Your task to perform on an android device: delete browsing data in the chrome app Image 0: 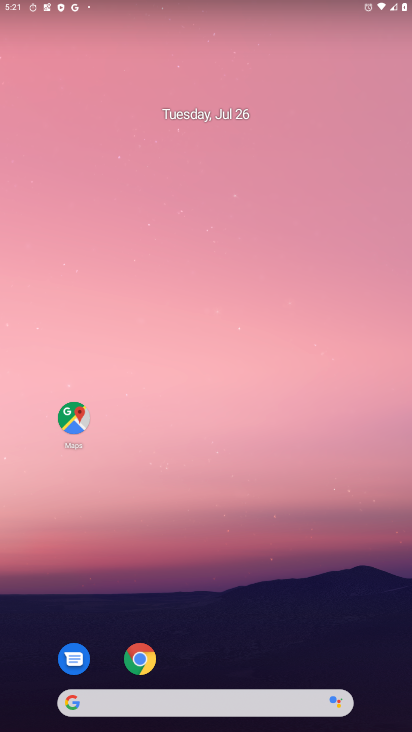
Step 0: press home button
Your task to perform on an android device: delete browsing data in the chrome app Image 1: 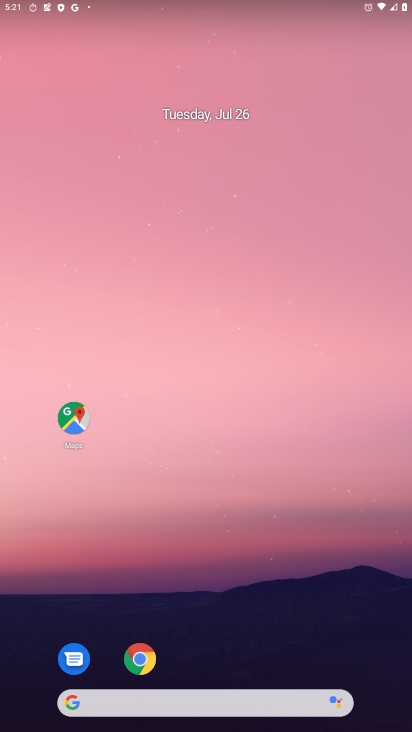
Step 1: drag from (218, 675) to (217, 16)
Your task to perform on an android device: delete browsing data in the chrome app Image 2: 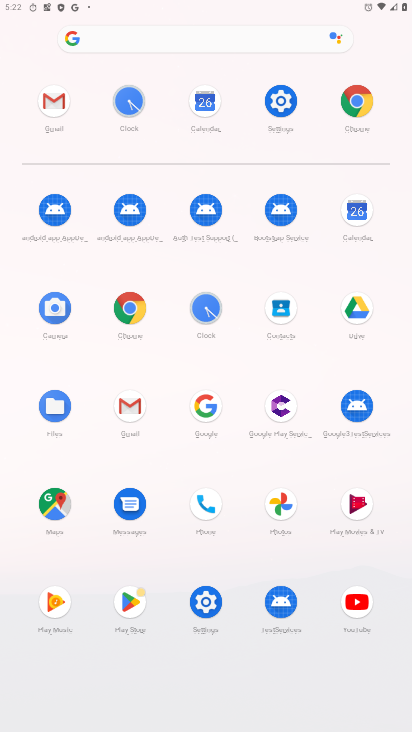
Step 2: click (357, 97)
Your task to perform on an android device: delete browsing data in the chrome app Image 3: 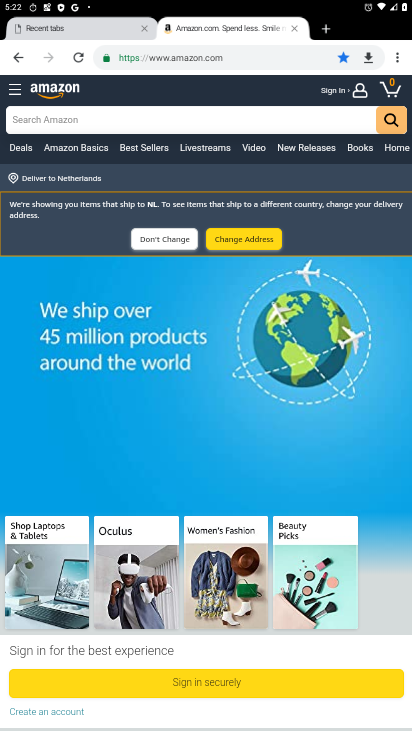
Step 3: click (397, 51)
Your task to perform on an android device: delete browsing data in the chrome app Image 4: 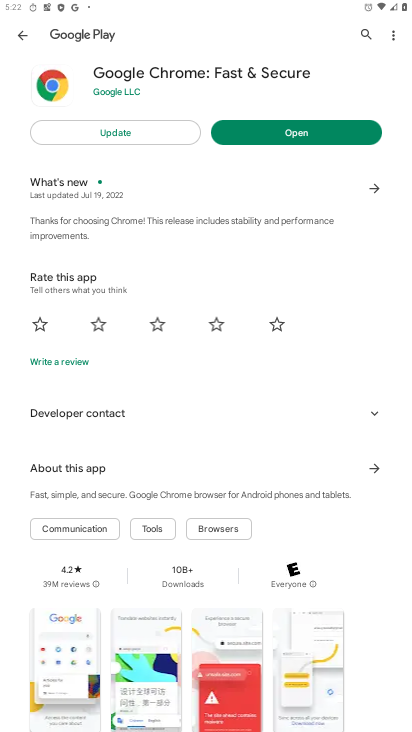
Step 4: click (8, 35)
Your task to perform on an android device: delete browsing data in the chrome app Image 5: 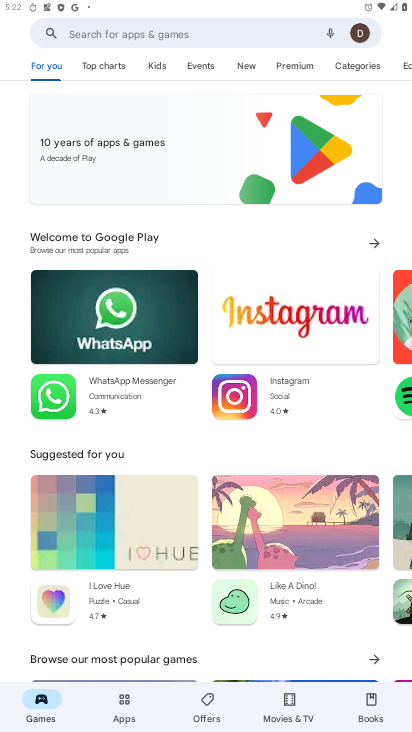
Step 5: press home button
Your task to perform on an android device: delete browsing data in the chrome app Image 6: 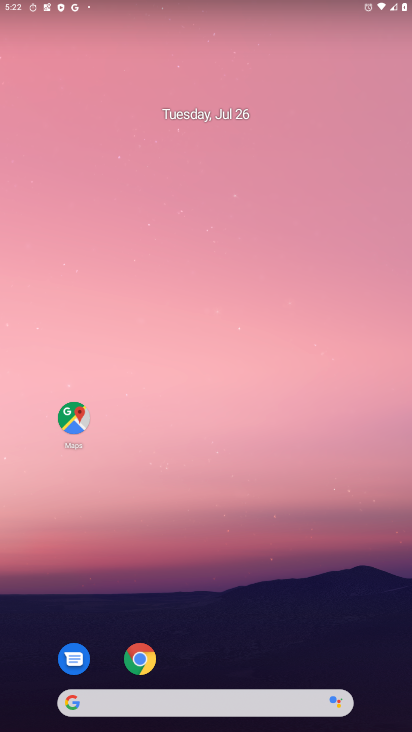
Step 6: click (142, 665)
Your task to perform on an android device: delete browsing data in the chrome app Image 7: 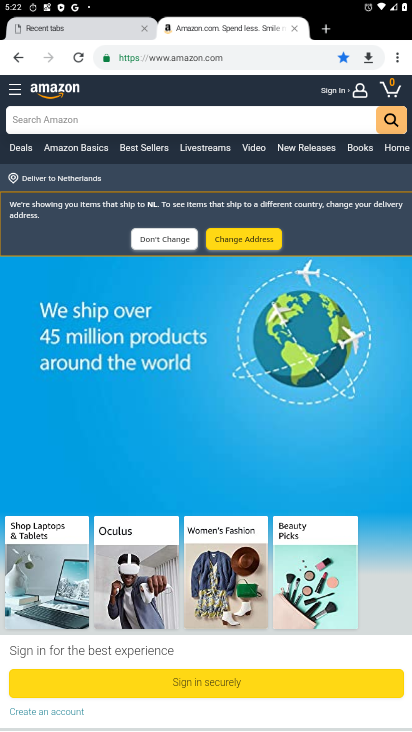
Step 7: click (395, 56)
Your task to perform on an android device: delete browsing data in the chrome app Image 8: 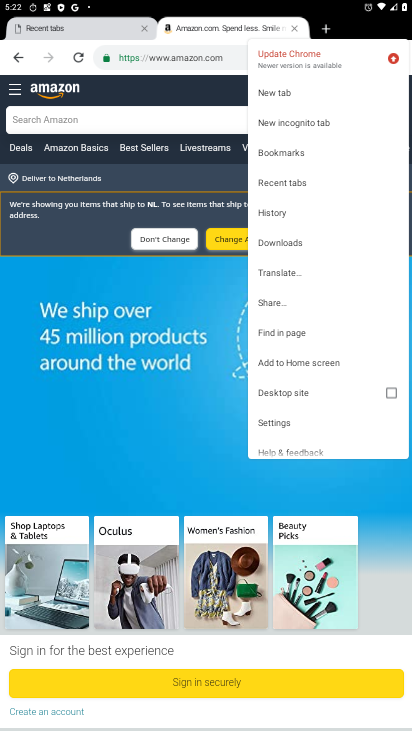
Step 8: click (296, 211)
Your task to perform on an android device: delete browsing data in the chrome app Image 9: 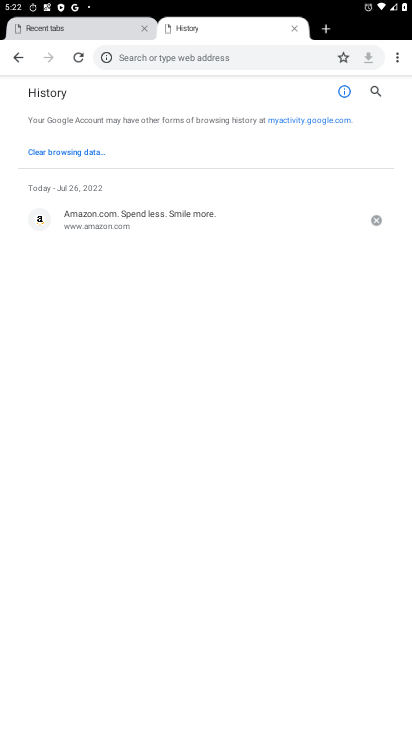
Step 9: click (76, 156)
Your task to perform on an android device: delete browsing data in the chrome app Image 10: 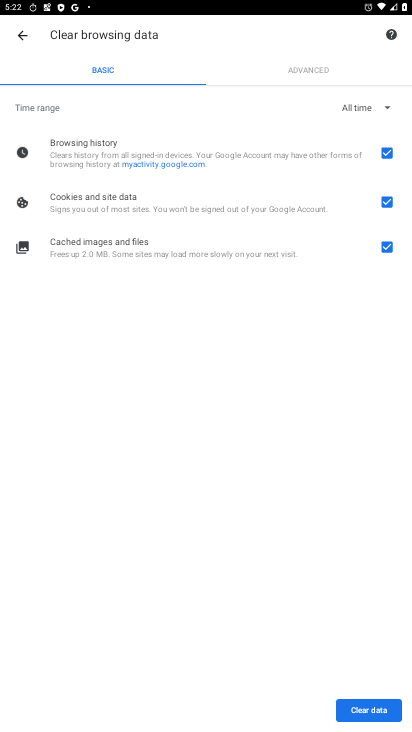
Step 10: click (376, 710)
Your task to perform on an android device: delete browsing data in the chrome app Image 11: 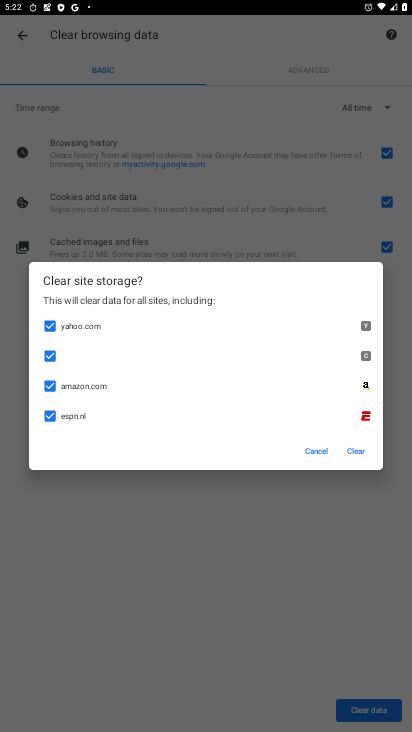
Step 11: click (353, 448)
Your task to perform on an android device: delete browsing data in the chrome app Image 12: 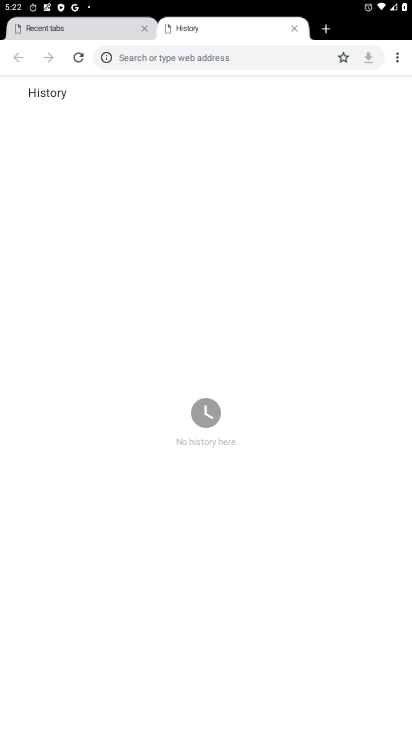
Step 12: task complete